Your task to perform on an android device: Search for Mexican restaurants on Maps Image 0: 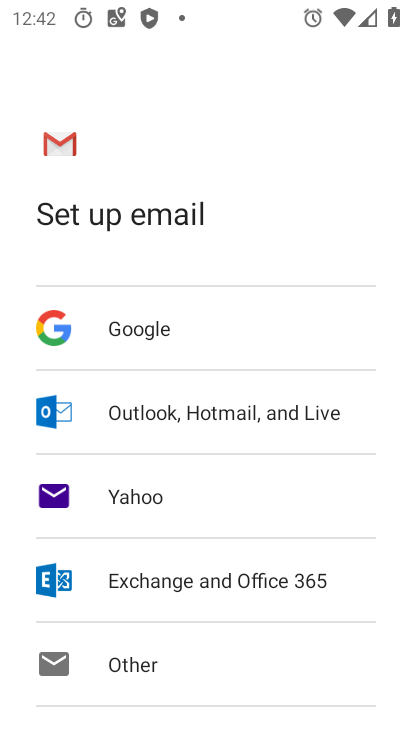
Step 0: press home button
Your task to perform on an android device: Search for Mexican restaurants on Maps Image 1: 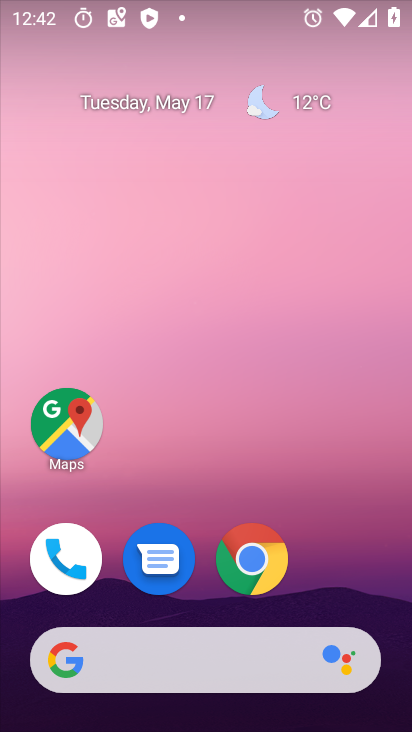
Step 1: click (77, 428)
Your task to perform on an android device: Search for Mexican restaurants on Maps Image 2: 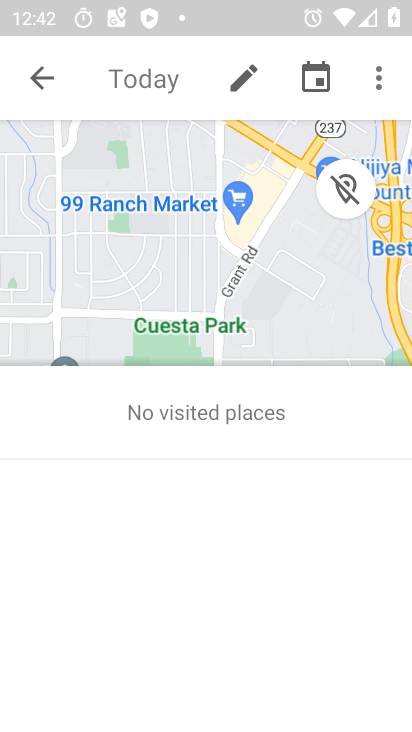
Step 2: click (39, 75)
Your task to perform on an android device: Search for Mexican restaurants on Maps Image 3: 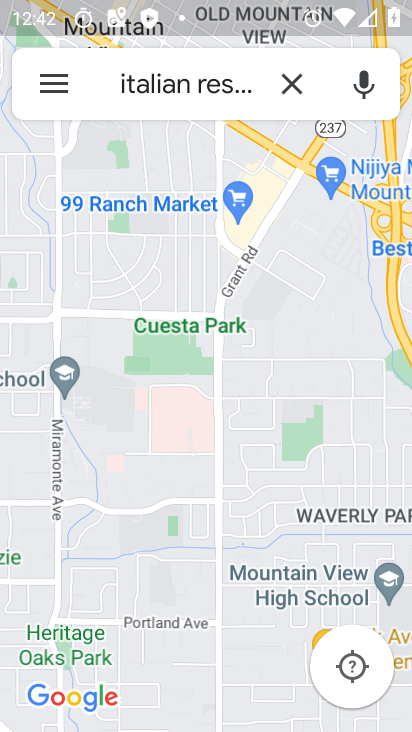
Step 3: click (129, 85)
Your task to perform on an android device: Search for Mexican restaurants on Maps Image 4: 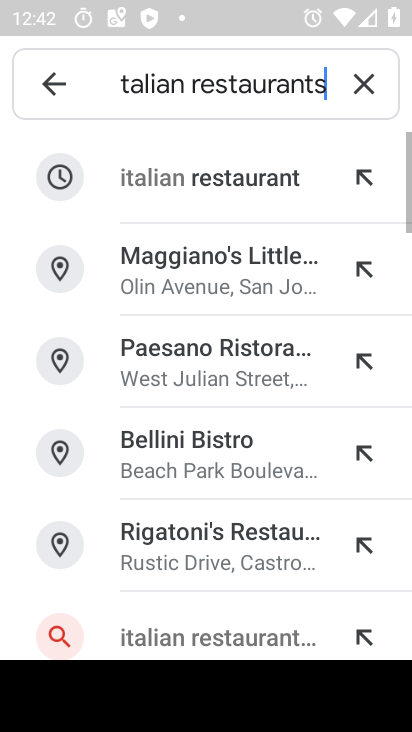
Step 4: click (366, 84)
Your task to perform on an android device: Search for Mexican restaurants on Maps Image 5: 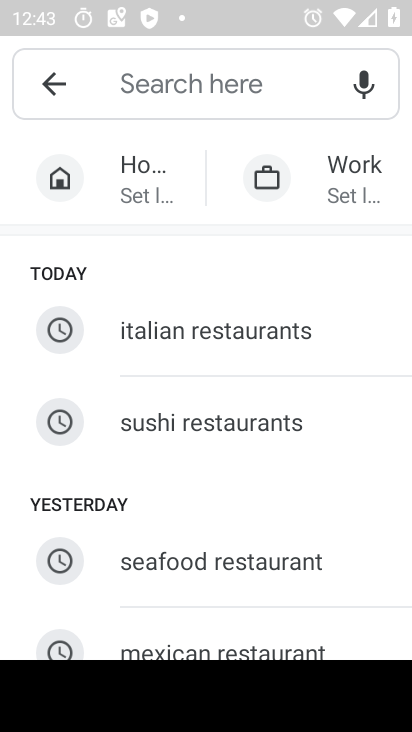
Step 5: type "Mexican restaurants"
Your task to perform on an android device: Search for Mexican restaurants on Maps Image 6: 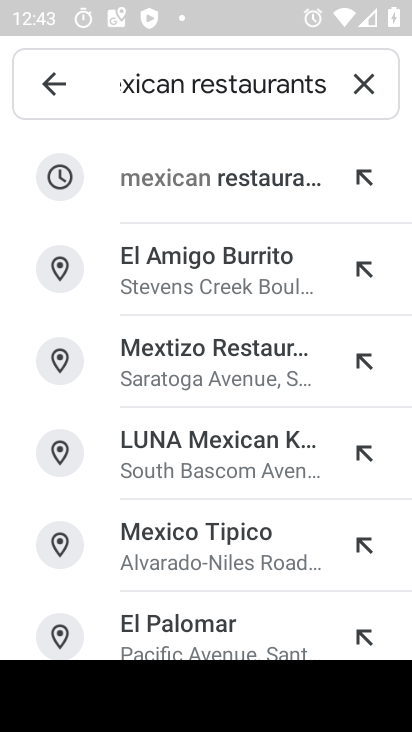
Step 6: press enter
Your task to perform on an android device: Search for Mexican restaurants on Maps Image 7: 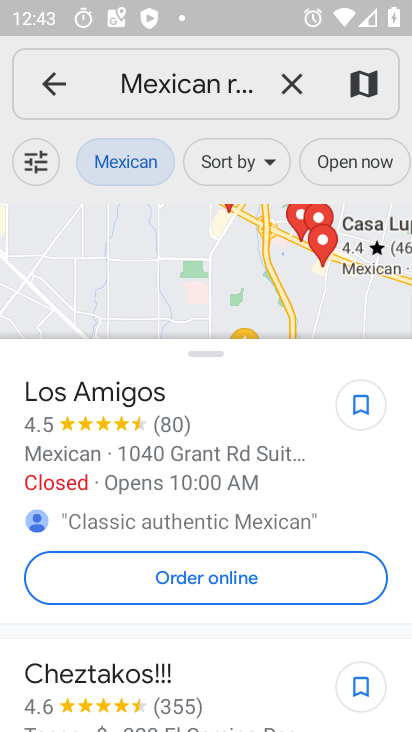
Step 7: task complete